Your task to perform on an android device: check battery use Image 0: 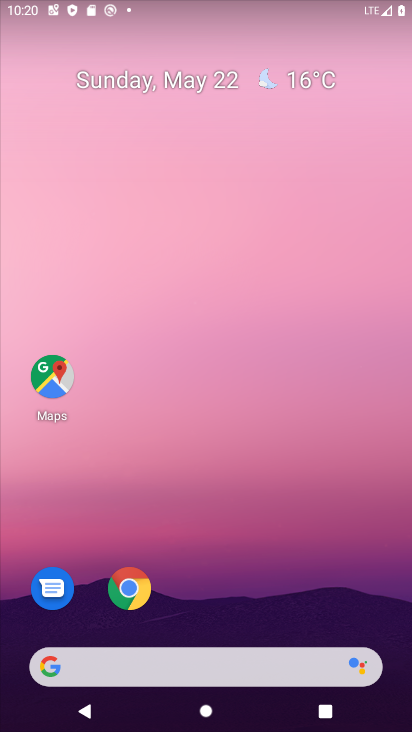
Step 0: drag from (255, 617) to (256, 244)
Your task to perform on an android device: check battery use Image 1: 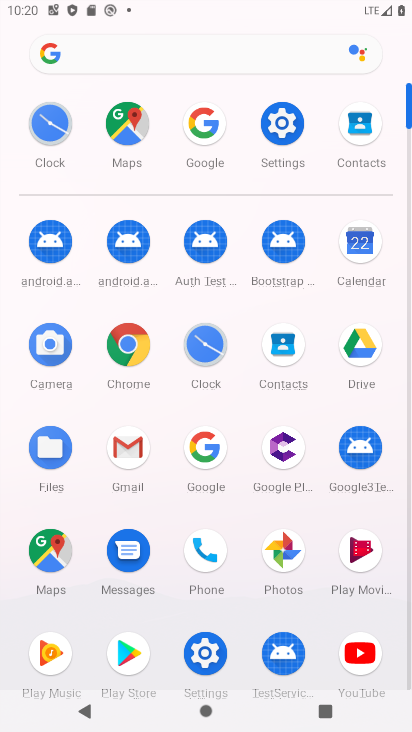
Step 1: click (287, 137)
Your task to perform on an android device: check battery use Image 2: 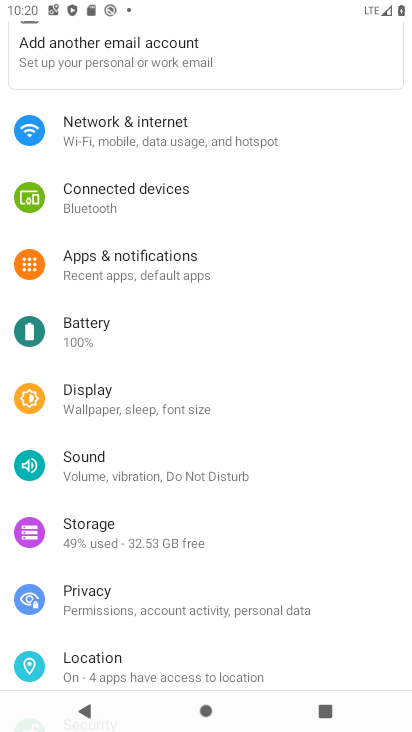
Step 2: click (117, 330)
Your task to perform on an android device: check battery use Image 3: 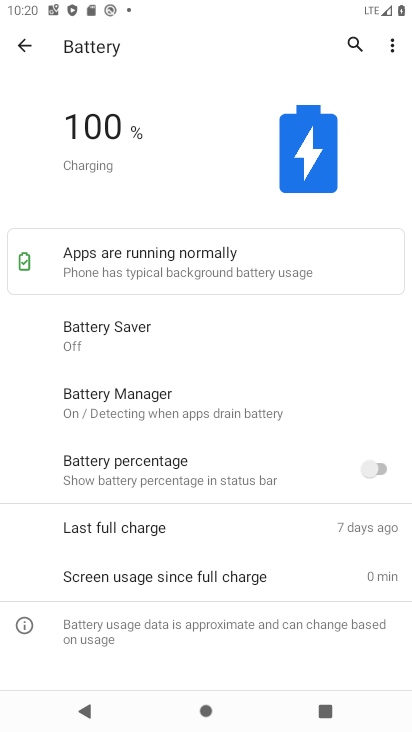
Step 3: drag from (212, 595) to (204, 395)
Your task to perform on an android device: check battery use Image 4: 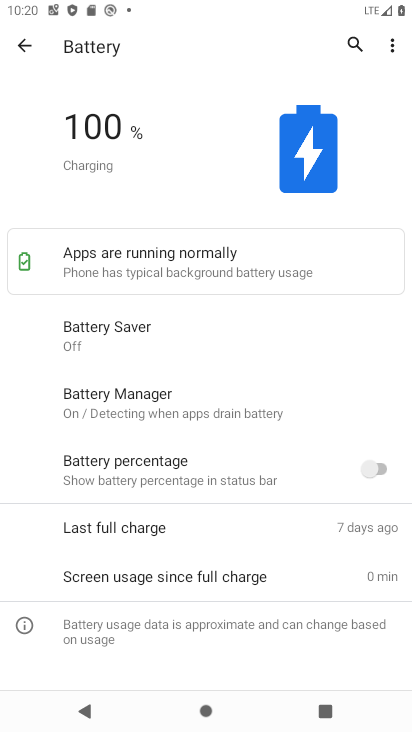
Step 4: click (389, 37)
Your task to perform on an android device: check battery use Image 5: 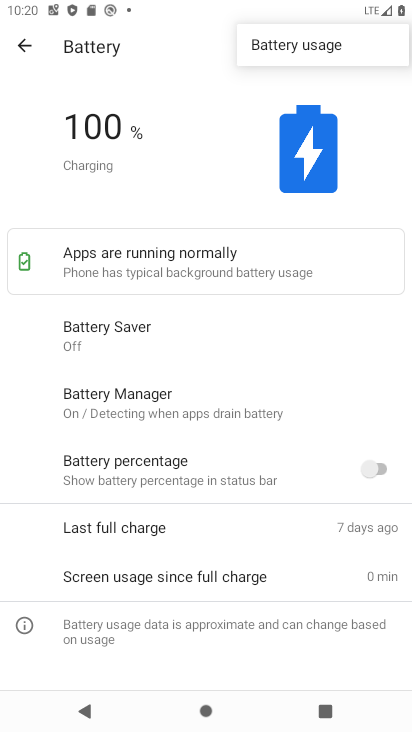
Step 5: click (301, 43)
Your task to perform on an android device: check battery use Image 6: 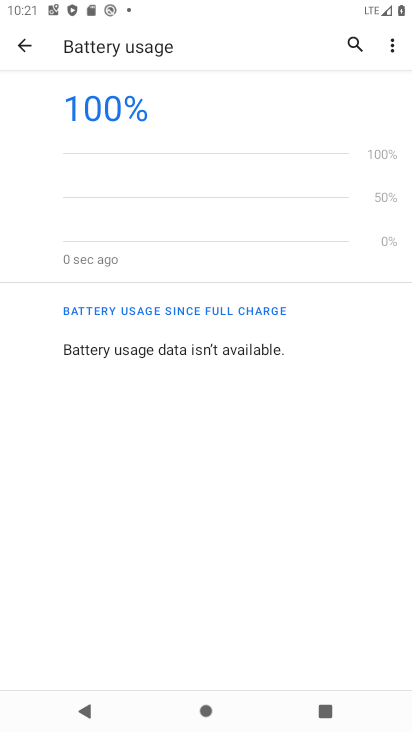
Step 6: task complete